Your task to perform on an android device: What's the price of the EGO 14-in 56-Volt Brushless Cordless Chainsaw? Image 0: 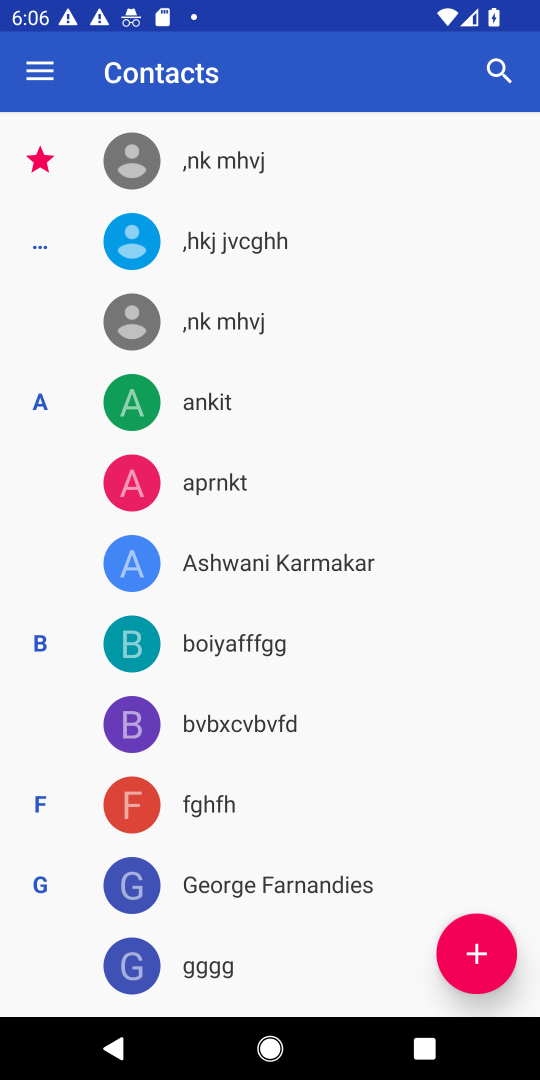
Step 0: press home button
Your task to perform on an android device: What's the price of the EGO 14-in 56-Volt Brushless Cordless Chainsaw? Image 1: 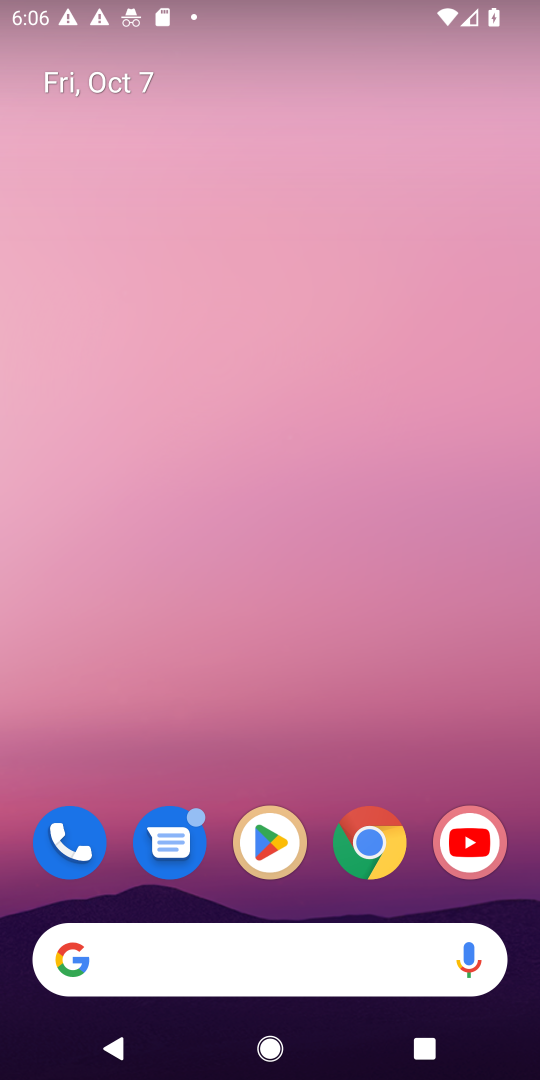
Step 1: click (317, 954)
Your task to perform on an android device: What's the price of the EGO 14-in 56-Volt Brushless Cordless Chainsaw? Image 2: 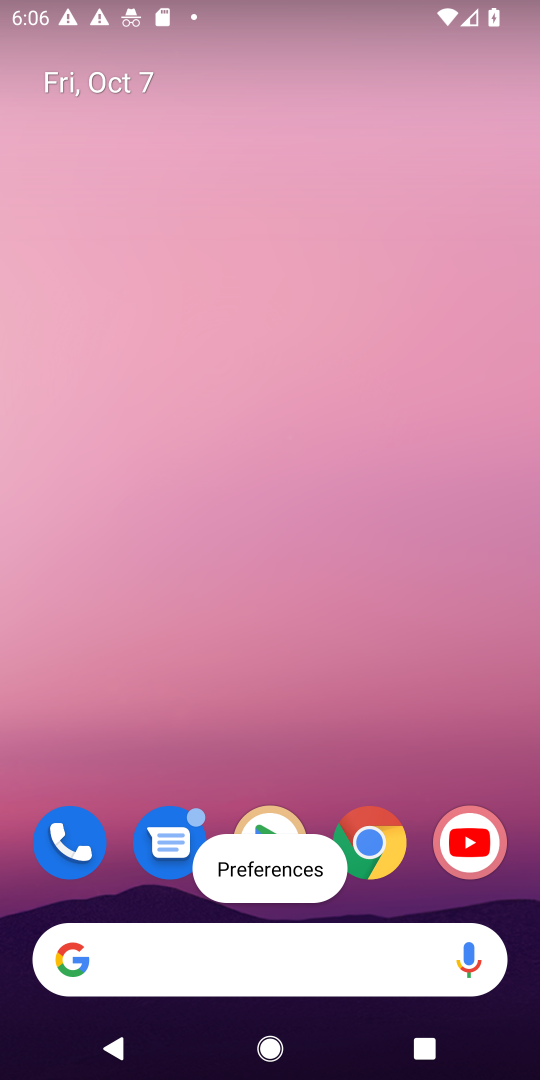
Step 2: click (320, 958)
Your task to perform on an android device: What's the price of the EGO 14-in 56-Volt Brushless Cordless Chainsaw? Image 3: 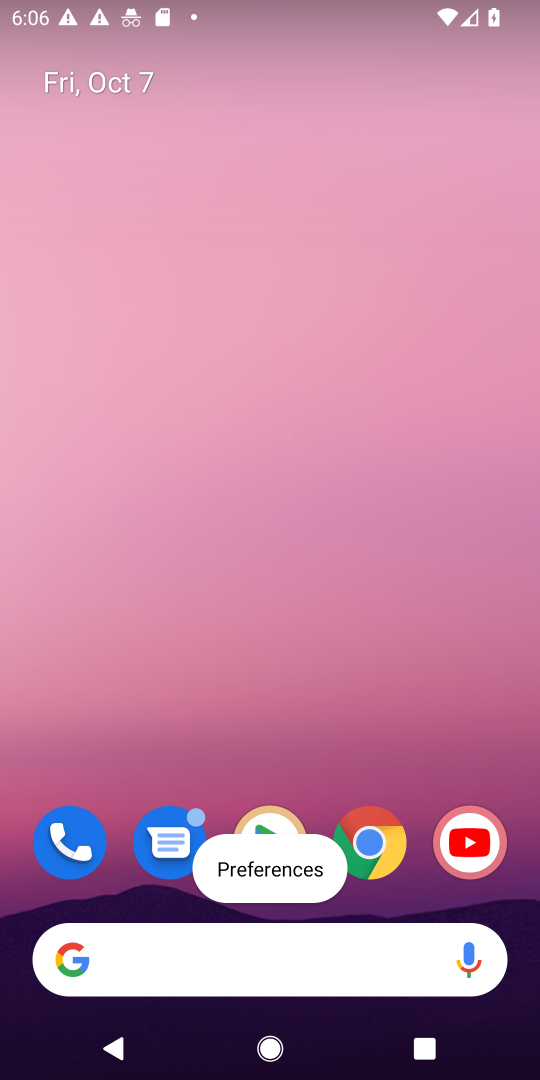
Step 3: click (194, 977)
Your task to perform on an android device: What's the price of the EGO 14-in 56-Volt Brushless Cordless Chainsaw? Image 4: 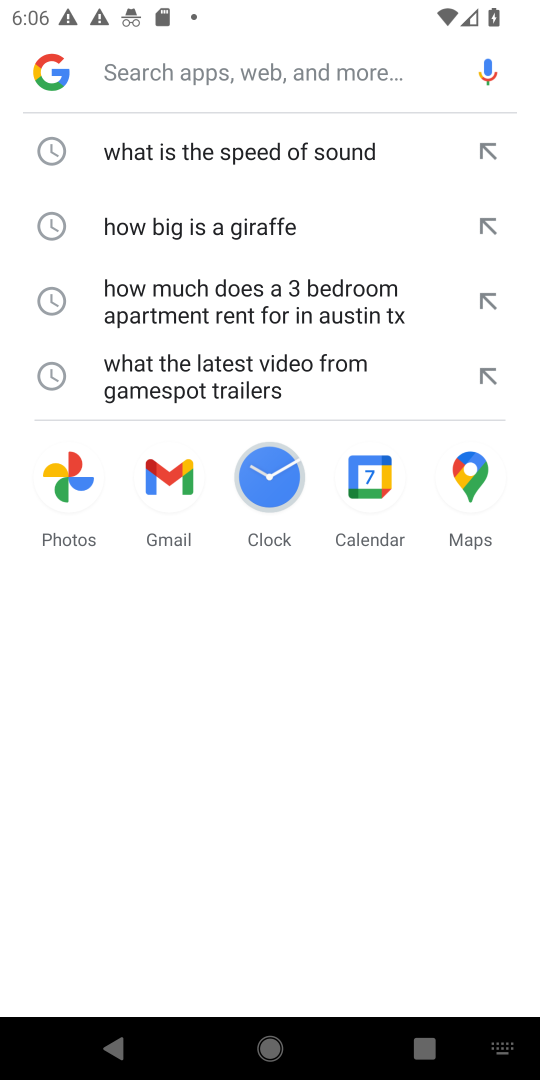
Step 4: click (201, 76)
Your task to perform on an android device: What's the price of the EGO 14-in 56-Volt Brushless Cordless Chainsaw? Image 5: 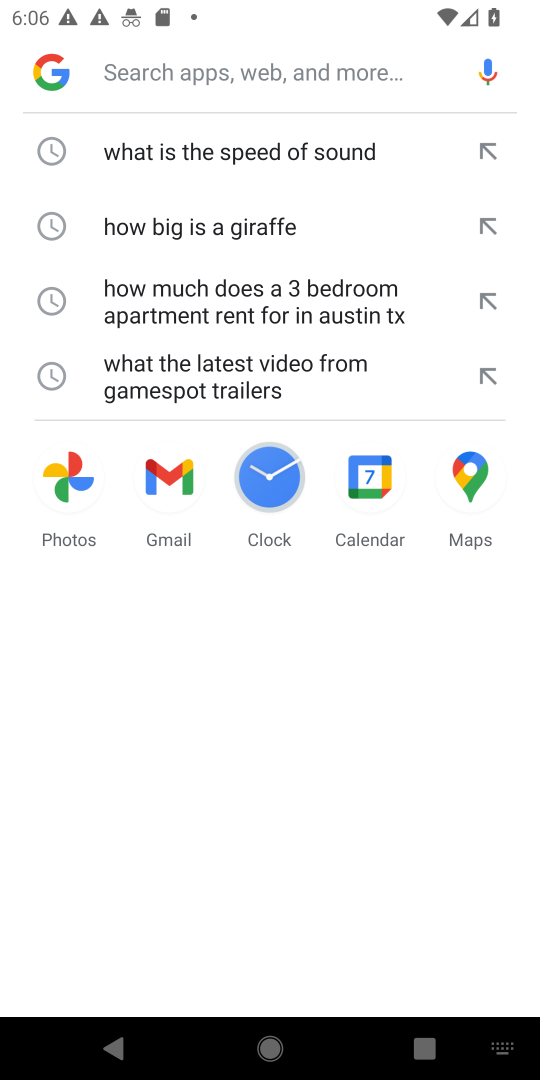
Step 5: type "What's the price of the EGO 14-in 56-Volt Brushless Cordless Chainsaw?"
Your task to perform on an android device: What's the price of the EGO 14-in 56-Volt Brushless Cordless Chainsaw? Image 6: 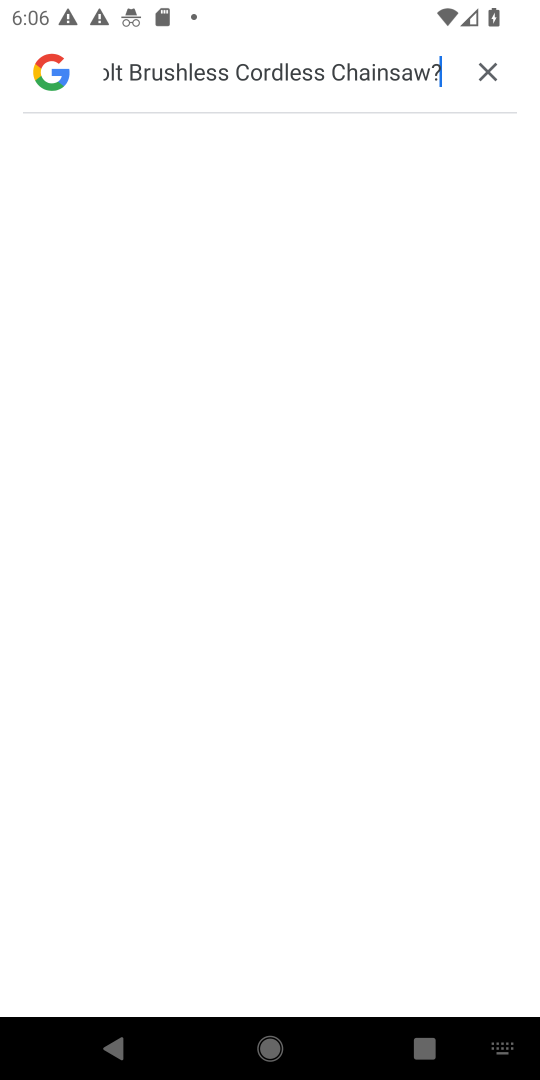
Step 6: task complete